Your task to perform on an android device: show emergency info Image 0: 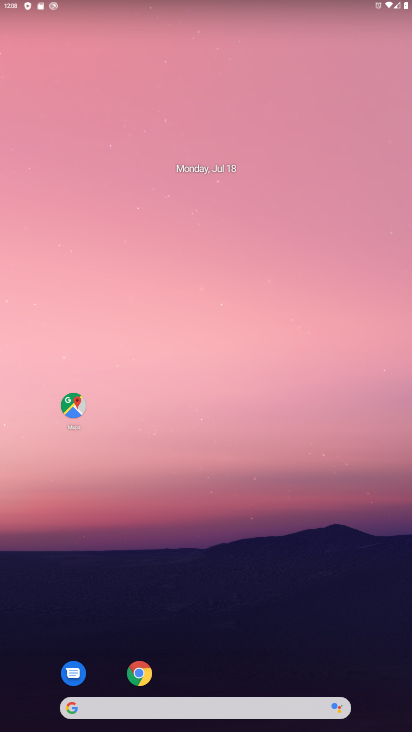
Step 0: drag from (197, 674) to (200, 317)
Your task to perform on an android device: show emergency info Image 1: 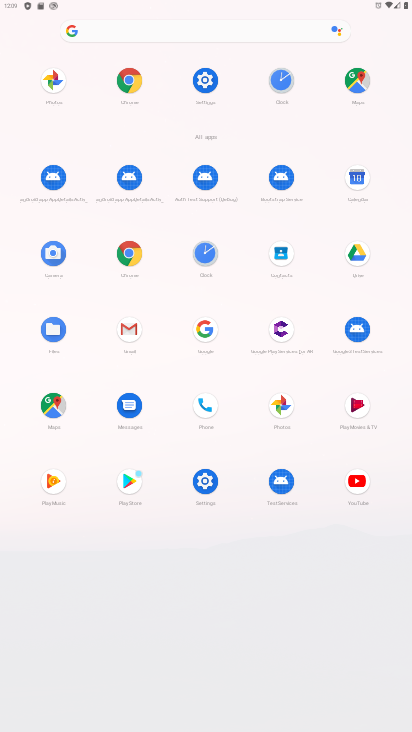
Step 1: click (221, 78)
Your task to perform on an android device: show emergency info Image 2: 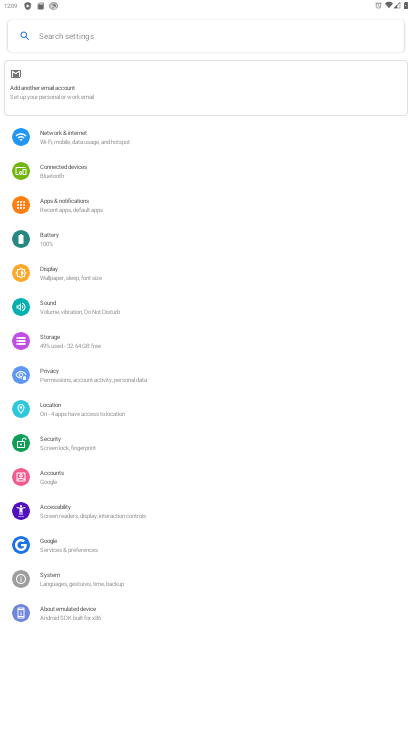
Step 2: click (91, 599)
Your task to perform on an android device: show emergency info Image 3: 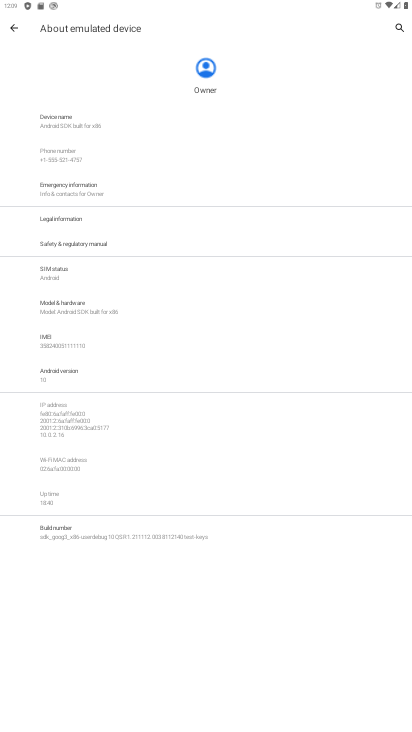
Step 3: click (121, 191)
Your task to perform on an android device: show emergency info Image 4: 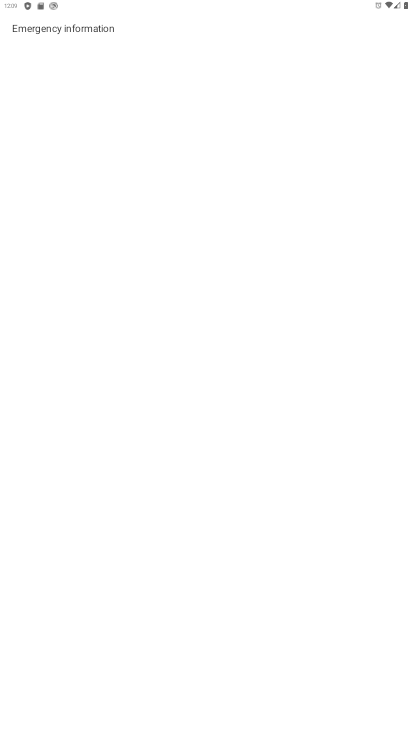
Step 4: task complete